Your task to perform on an android device: Open eBay Image 0: 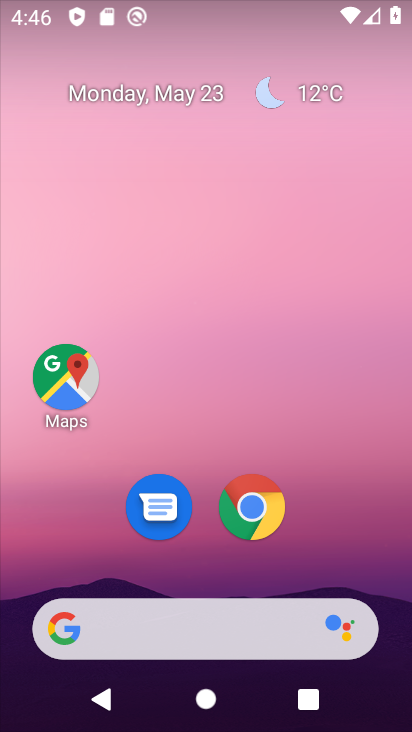
Step 0: click (262, 498)
Your task to perform on an android device: Open eBay Image 1: 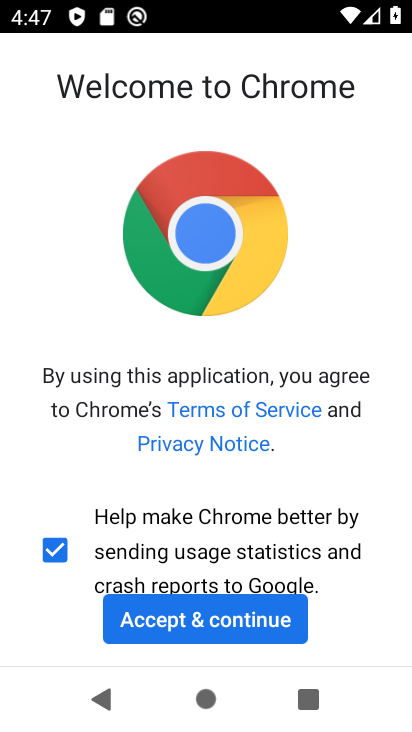
Step 1: click (197, 610)
Your task to perform on an android device: Open eBay Image 2: 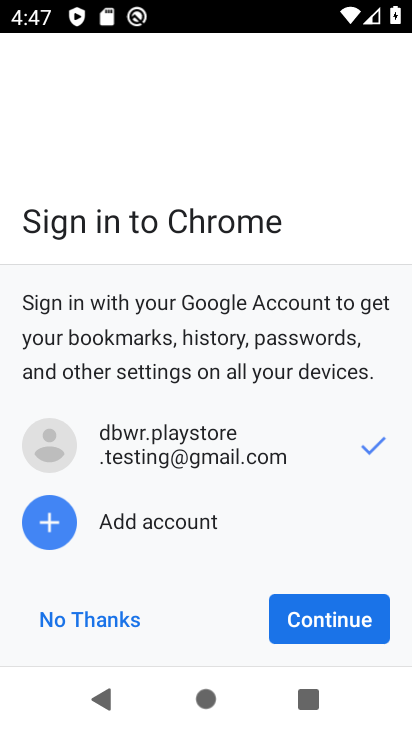
Step 2: click (80, 612)
Your task to perform on an android device: Open eBay Image 3: 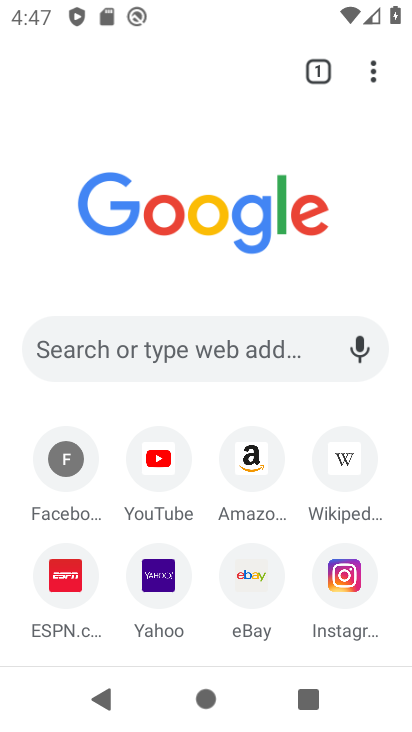
Step 3: click (253, 582)
Your task to perform on an android device: Open eBay Image 4: 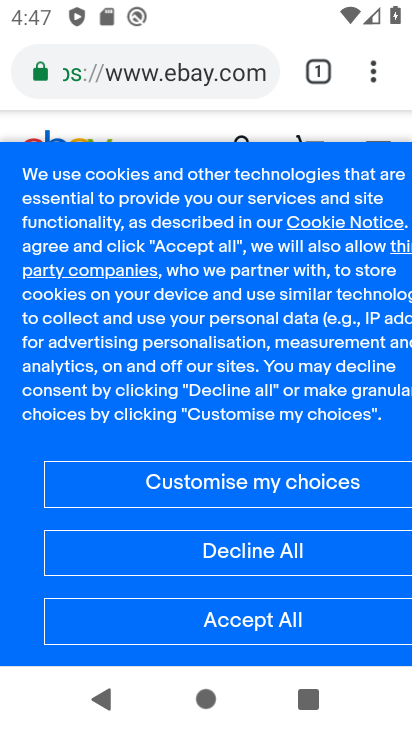
Step 4: task complete